Your task to perform on an android device: Go to accessibility settings Image 0: 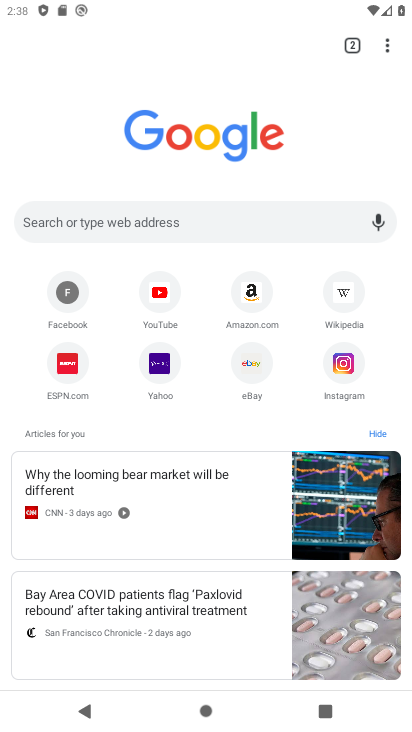
Step 0: press home button
Your task to perform on an android device: Go to accessibility settings Image 1: 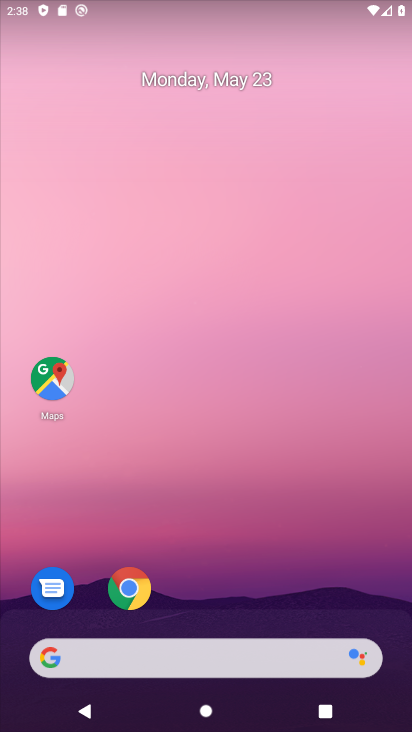
Step 1: drag from (231, 717) to (158, 127)
Your task to perform on an android device: Go to accessibility settings Image 2: 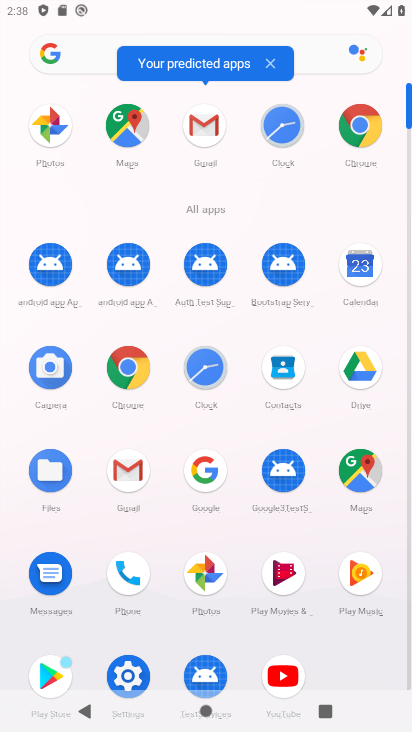
Step 2: click (125, 668)
Your task to perform on an android device: Go to accessibility settings Image 3: 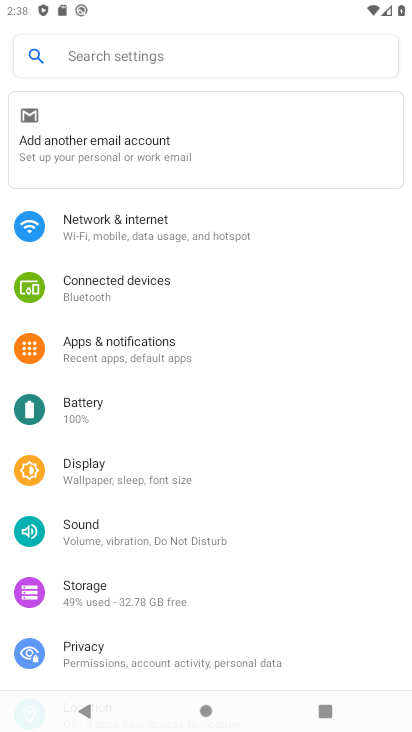
Step 3: drag from (125, 635) to (97, 252)
Your task to perform on an android device: Go to accessibility settings Image 4: 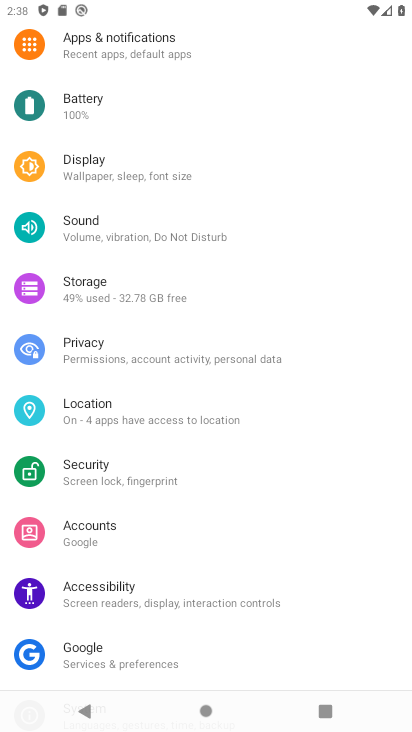
Step 4: click (103, 593)
Your task to perform on an android device: Go to accessibility settings Image 5: 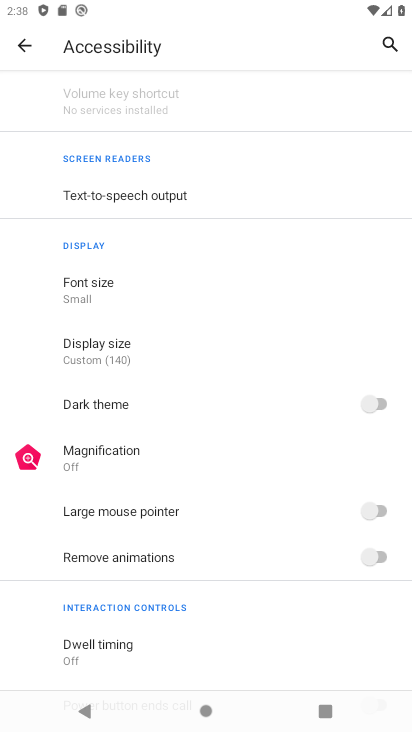
Step 5: task complete